Your task to perform on an android device: Turn off the flashlight Image 0: 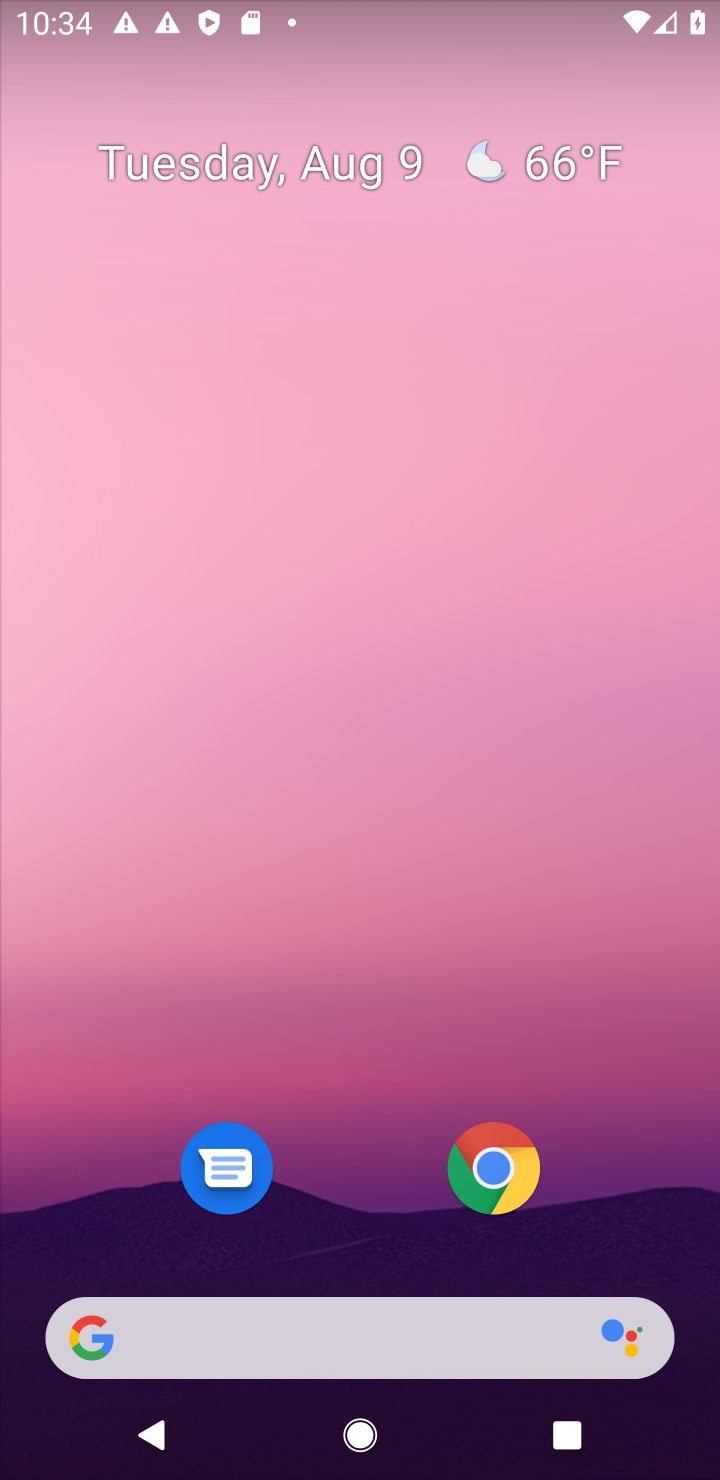
Step 0: drag from (302, 79) to (263, 1131)
Your task to perform on an android device: Turn off the flashlight Image 1: 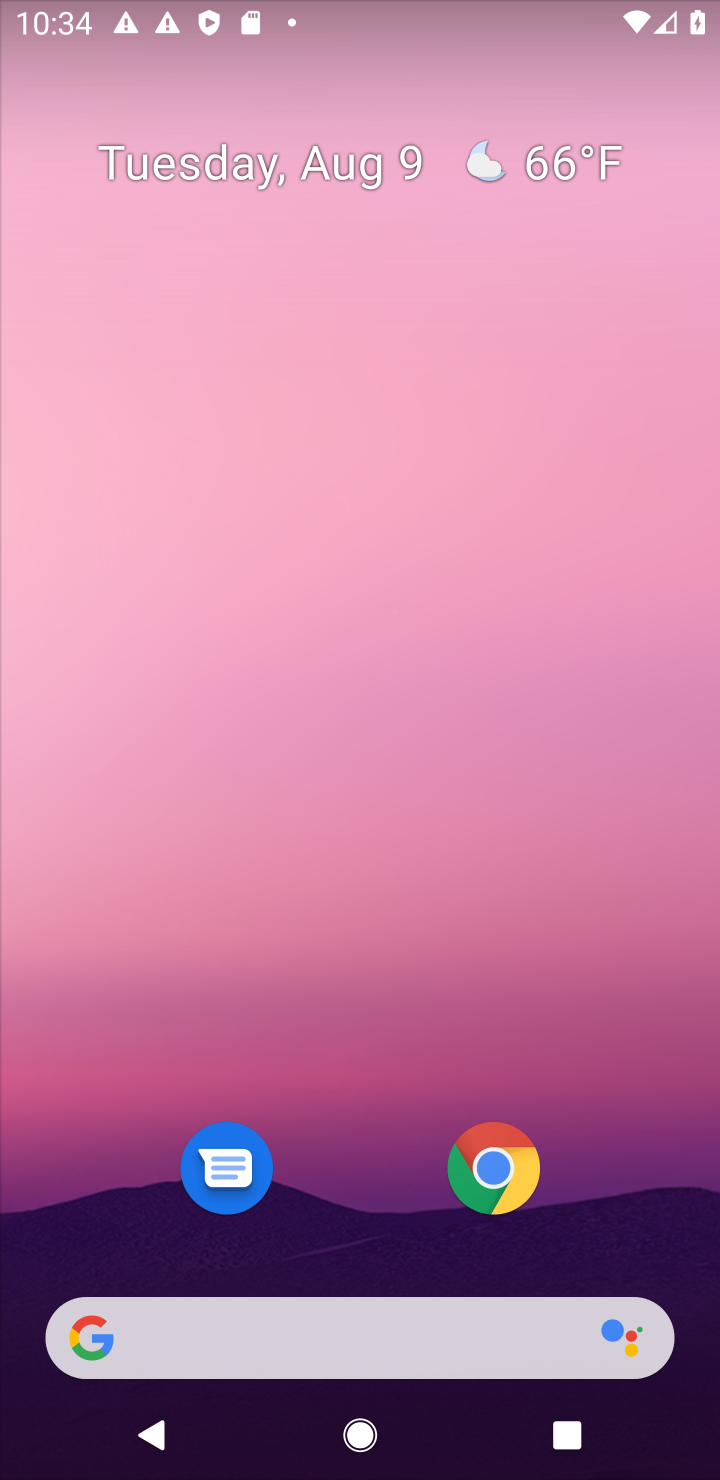
Step 1: task complete